Your task to perform on an android device: toggle pop-ups in chrome Image 0: 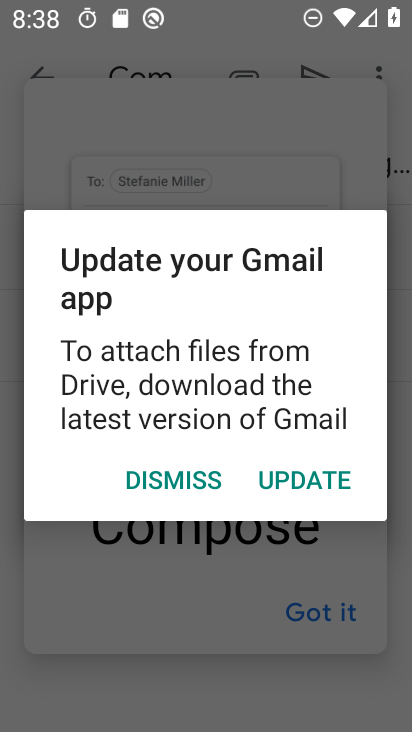
Step 0: press home button
Your task to perform on an android device: toggle pop-ups in chrome Image 1: 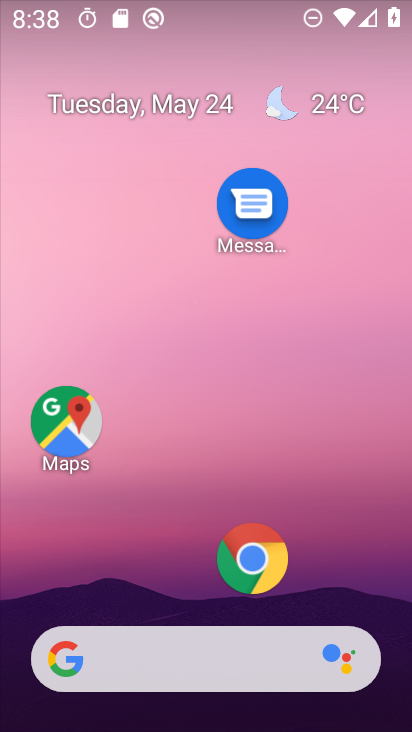
Step 1: click (270, 572)
Your task to perform on an android device: toggle pop-ups in chrome Image 2: 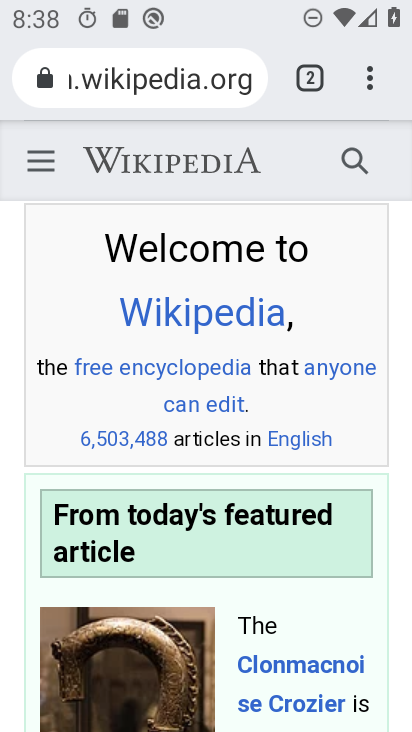
Step 2: drag from (366, 79) to (129, 628)
Your task to perform on an android device: toggle pop-ups in chrome Image 3: 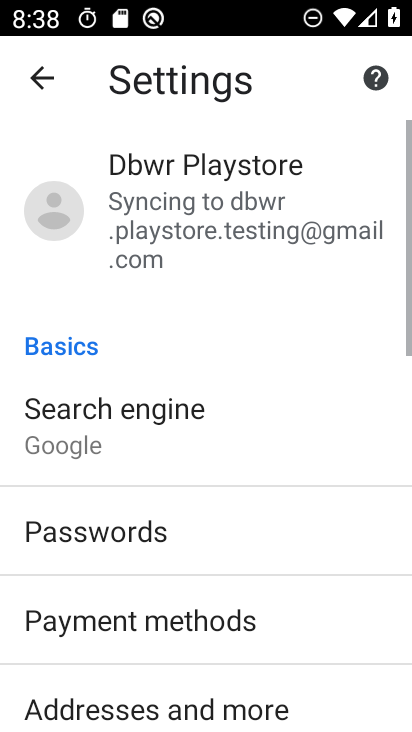
Step 3: drag from (134, 597) to (165, 314)
Your task to perform on an android device: toggle pop-ups in chrome Image 4: 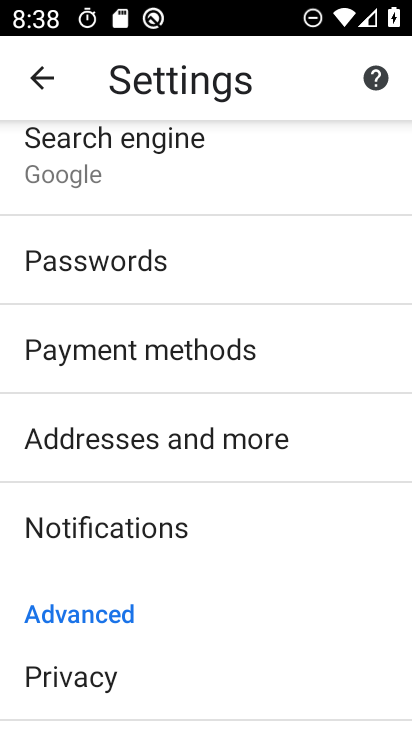
Step 4: drag from (198, 636) to (224, 330)
Your task to perform on an android device: toggle pop-ups in chrome Image 5: 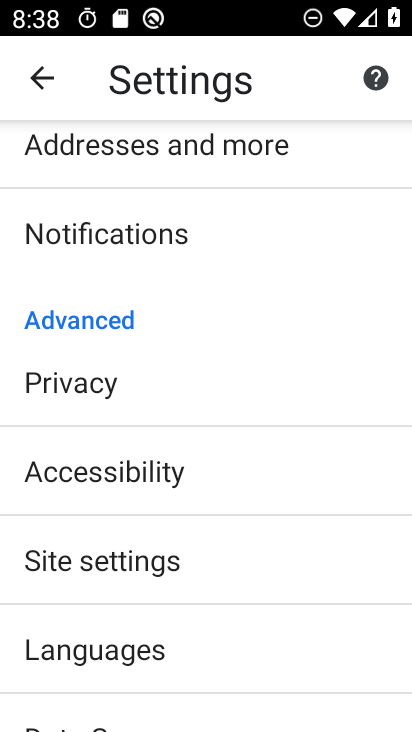
Step 5: click (184, 562)
Your task to perform on an android device: toggle pop-ups in chrome Image 6: 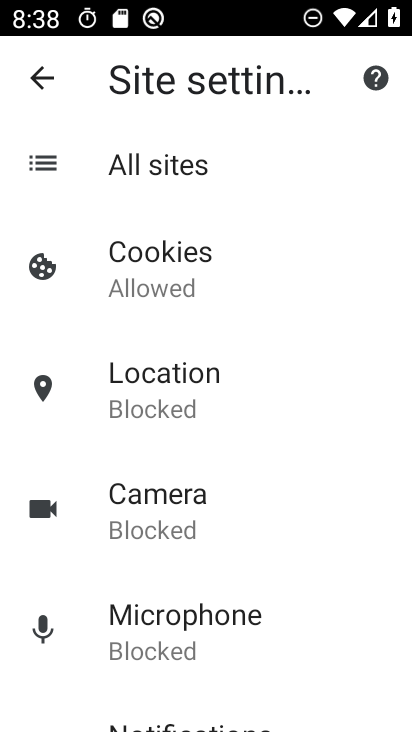
Step 6: drag from (214, 685) to (215, 418)
Your task to perform on an android device: toggle pop-ups in chrome Image 7: 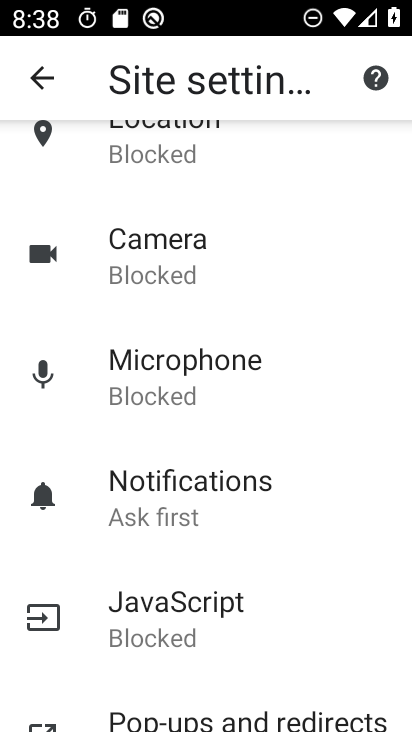
Step 7: drag from (225, 638) to (229, 431)
Your task to perform on an android device: toggle pop-ups in chrome Image 8: 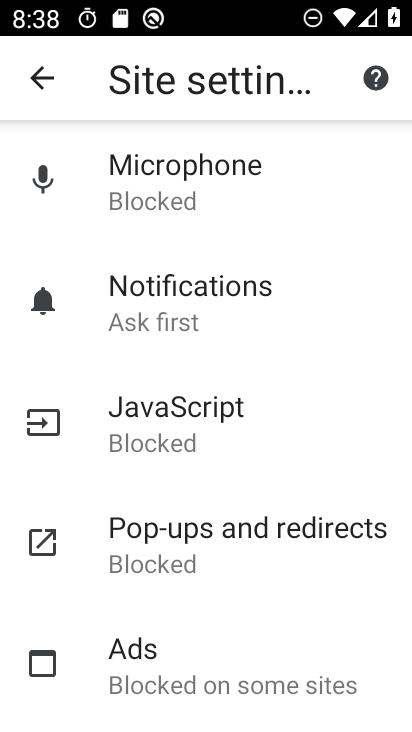
Step 8: click (222, 523)
Your task to perform on an android device: toggle pop-ups in chrome Image 9: 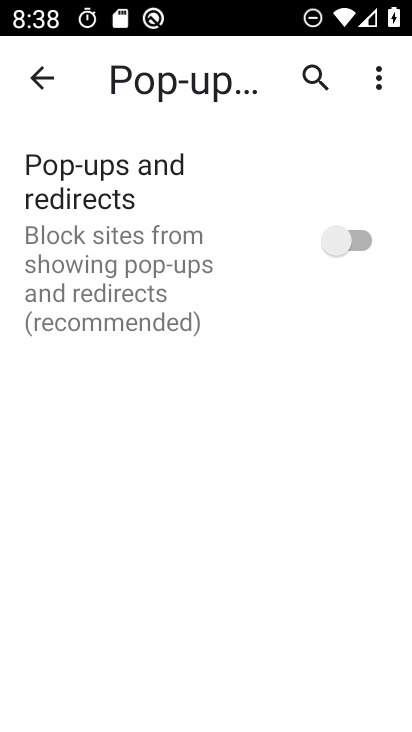
Step 9: click (355, 238)
Your task to perform on an android device: toggle pop-ups in chrome Image 10: 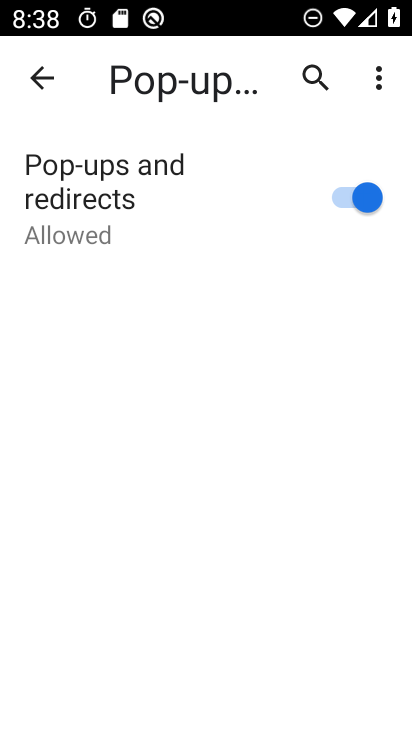
Step 10: task complete